Your task to perform on an android device: Go to Google maps Image 0: 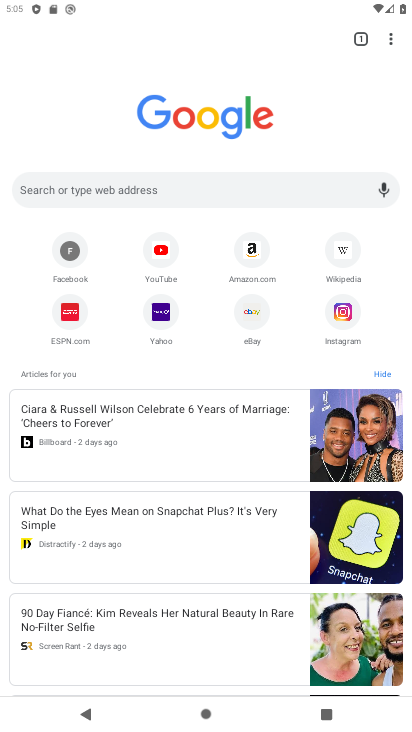
Step 0: press home button
Your task to perform on an android device: Go to Google maps Image 1: 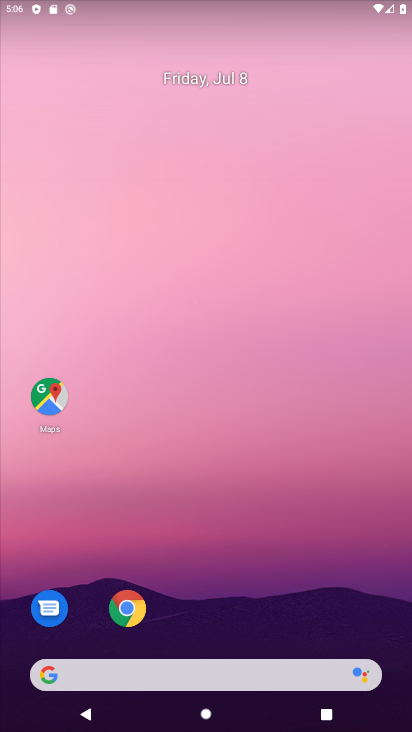
Step 1: drag from (149, 678) to (162, 2)
Your task to perform on an android device: Go to Google maps Image 2: 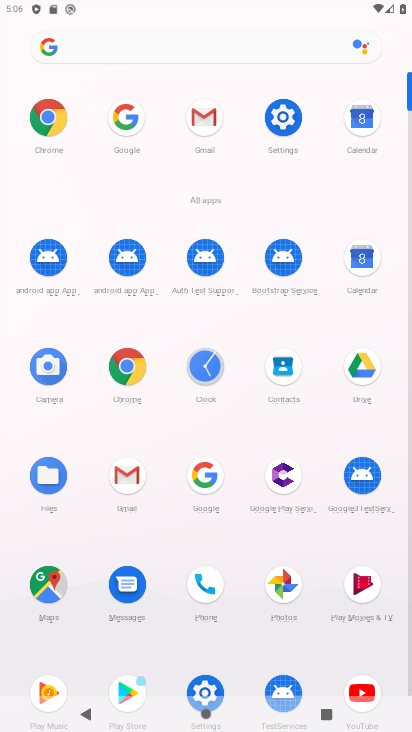
Step 2: click (57, 589)
Your task to perform on an android device: Go to Google maps Image 3: 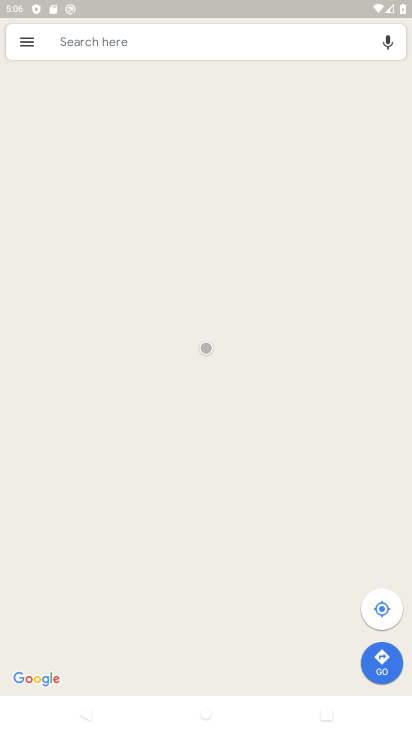
Step 3: task complete